Your task to perform on an android device: Clear all items from cart on newegg. Image 0: 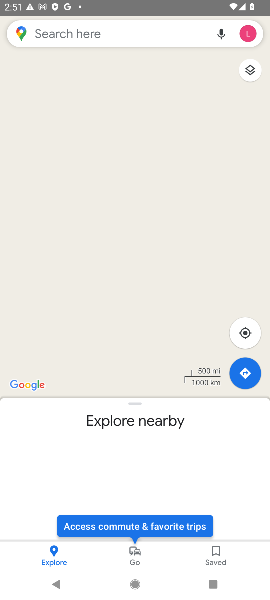
Step 0: press home button
Your task to perform on an android device: Clear all items from cart on newegg. Image 1: 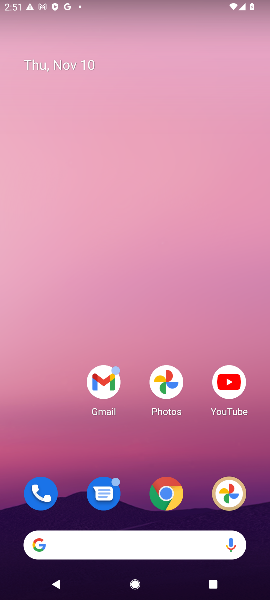
Step 1: drag from (114, 570) to (129, 190)
Your task to perform on an android device: Clear all items from cart on newegg. Image 2: 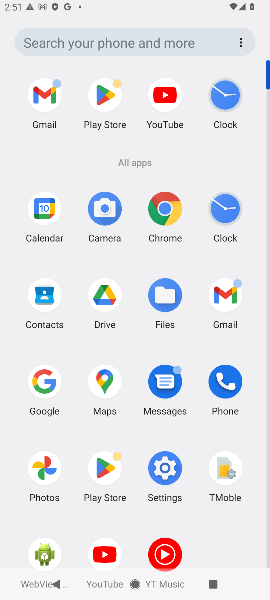
Step 2: click (44, 371)
Your task to perform on an android device: Clear all items from cart on newegg. Image 3: 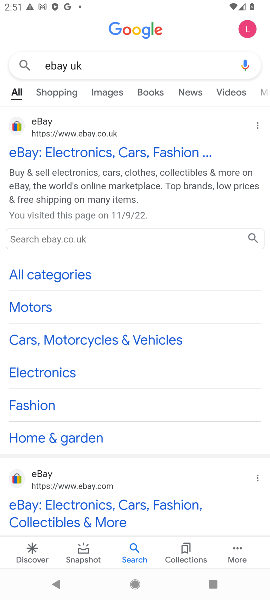
Step 3: click (94, 62)
Your task to perform on an android device: Clear all items from cart on newegg. Image 4: 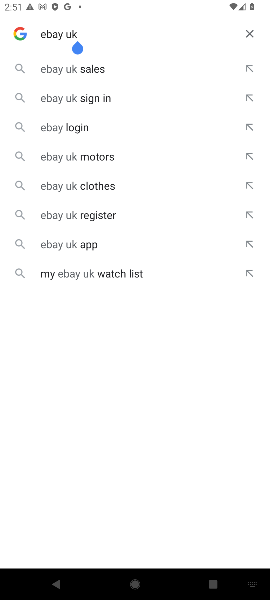
Step 4: click (253, 28)
Your task to perform on an android device: Clear all items from cart on newegg. Image 5: 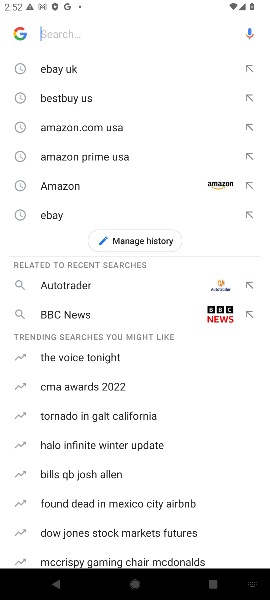
Step 5: click (78, 28)
Your task to perform on an android device: Clear all items from cart on newegg. Image 6: 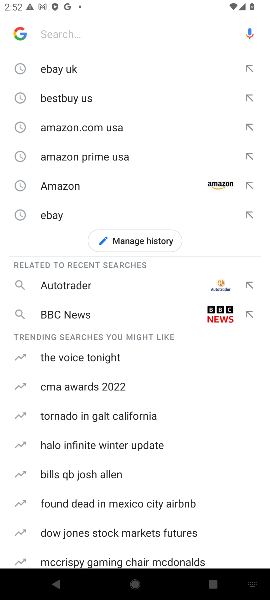
Step 6: type "newegg "
Your task to perform on an android device: Clear all items from cart on newegg. Image 7: 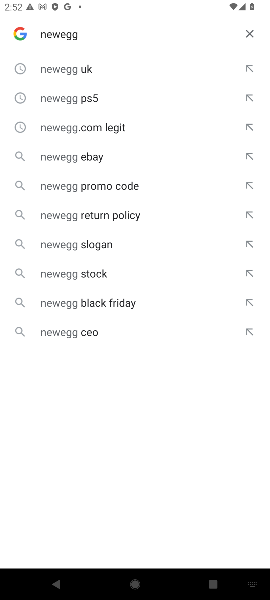
Step 7: click (71, 69)
Your task to perform on an android device: Clear all items from cart on newegg. Image 8: 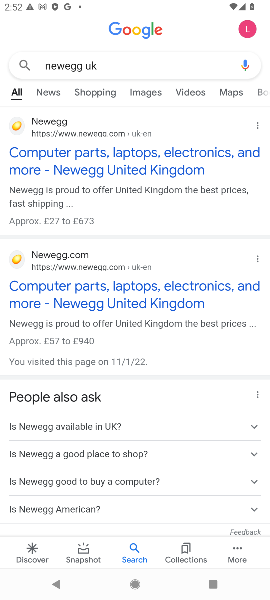
Step 8: click (20, 122)
Your task to perform on an android device: Clear all items from cart on newegg. Image 9: 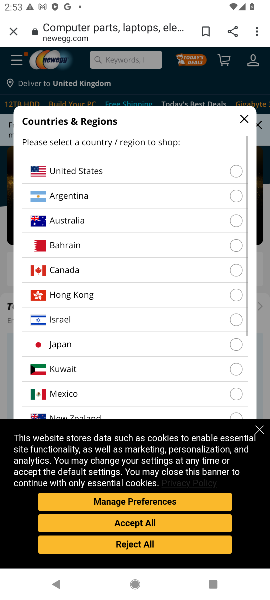
Step 9: click (158, 525)
Your task to perform on an android device: Clear all items from cart on newegg. Image 10: 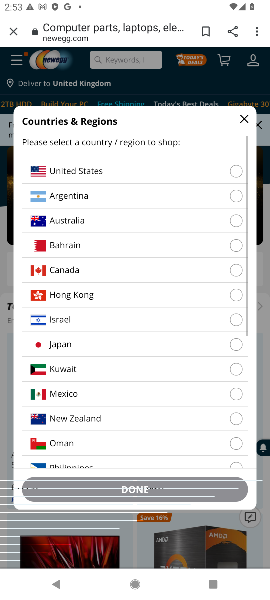
Step 10: click (244, 112)
Your task to perform on an android device: Clear all items from cart on newegg. Image 11: 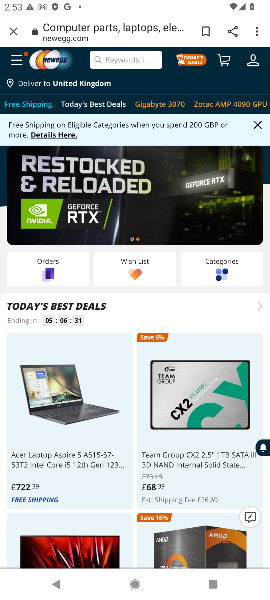
Step 11: click (226, 55)
Your task to perform on an android device: Clear all items from cart on newegg. Image 12: 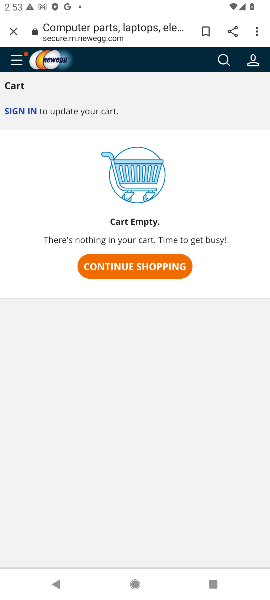
Step 12: task complete